Your task to perform on an android device: Open the web browser Image 0: 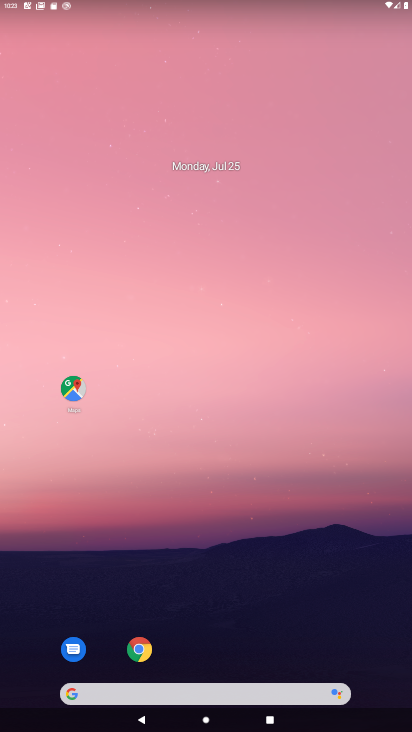
Step 0: click (142, 649)
Your task to perform on an android device: Open the web browser Image 1: 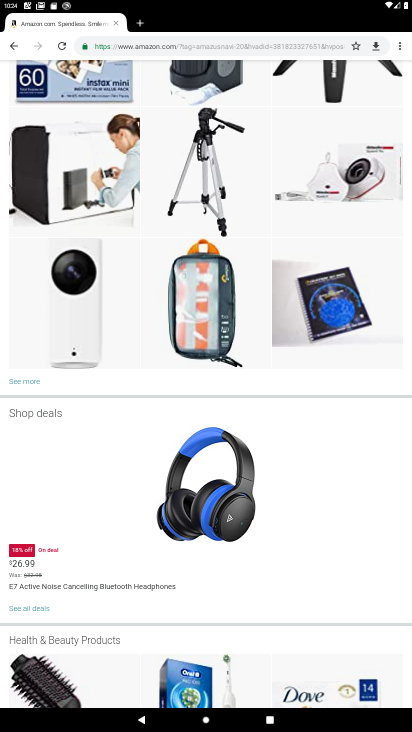
Step 1: task complete